Your task to perform on an android device: When is my next meeting? Image 0: 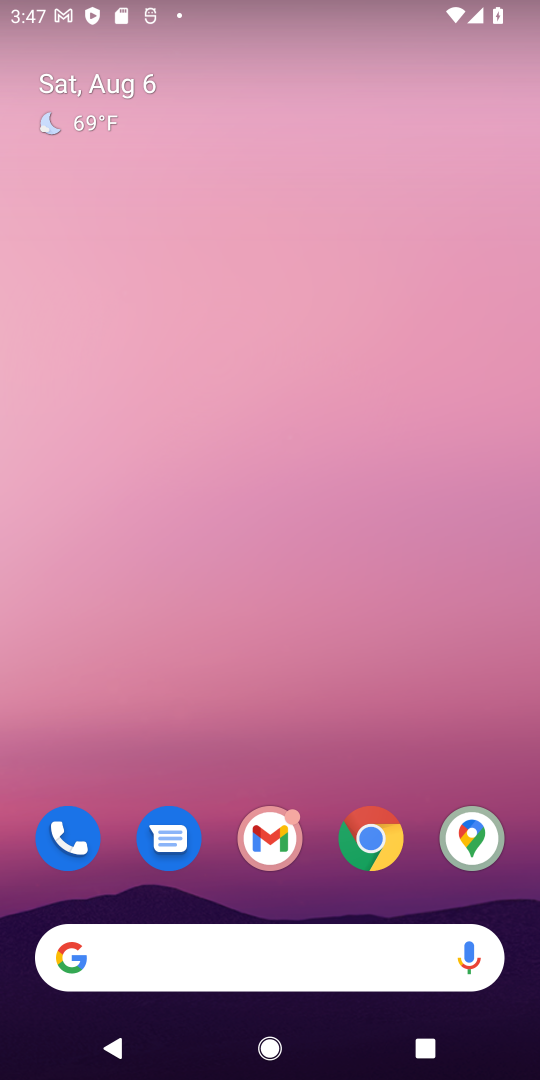
Step 0: drag from (199, 684) to (479, 147)
Your task to perform on an android device: When is my next meeting? Image 1: 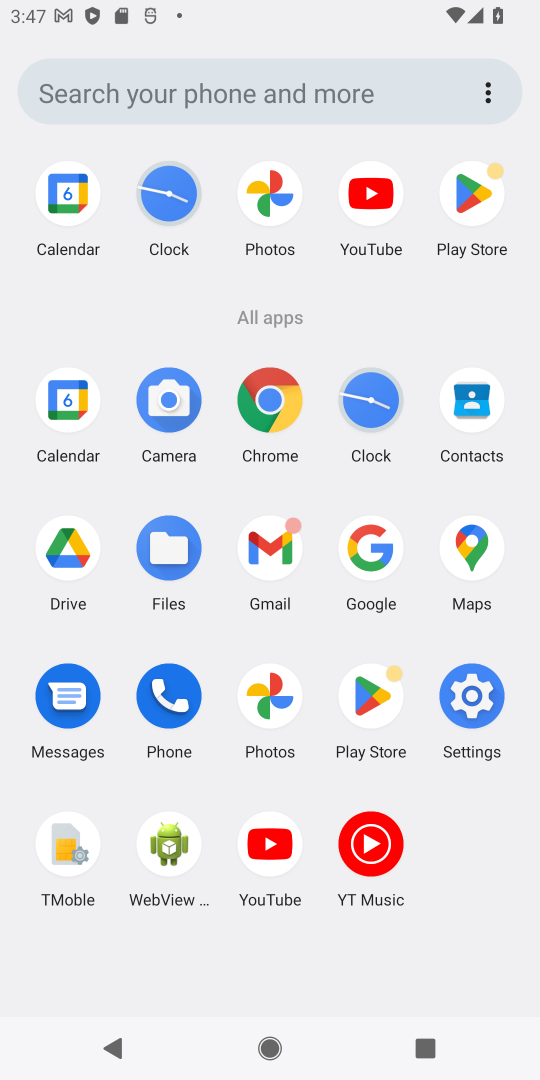
Step 1: click (62, 194)
Your task to perform on an android device: When is my next meeting? Image 2: 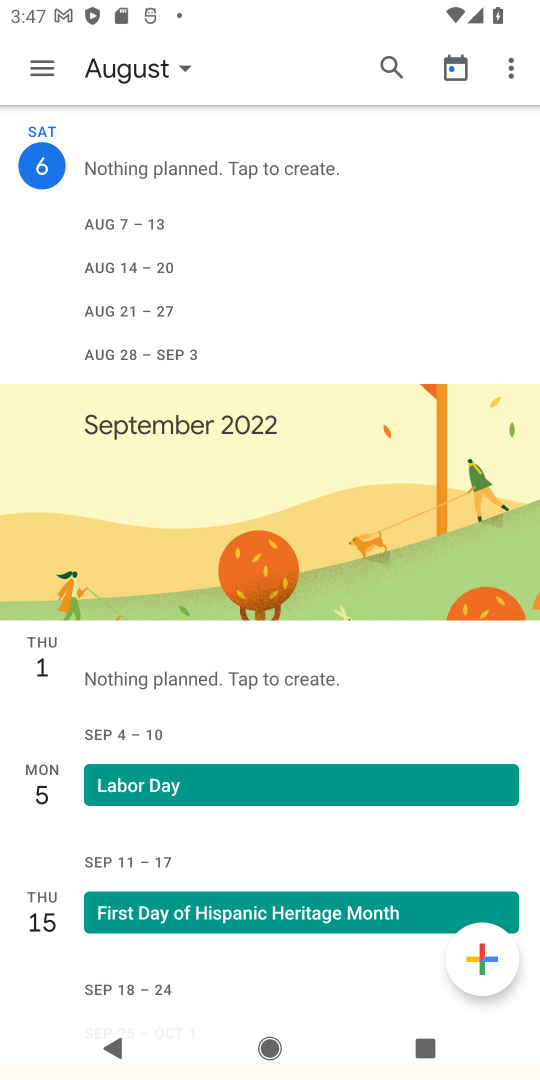
Step 2: task complete